Your task to perform on an android device: turn off sleep mode Image 0: 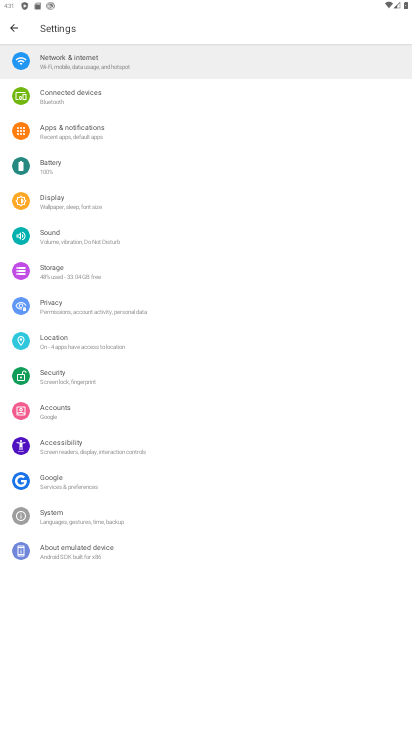
Step 0: drag from (132, 135) to (109, 730)
Your task to perform on an android device: turn off sleep mode Image 1: 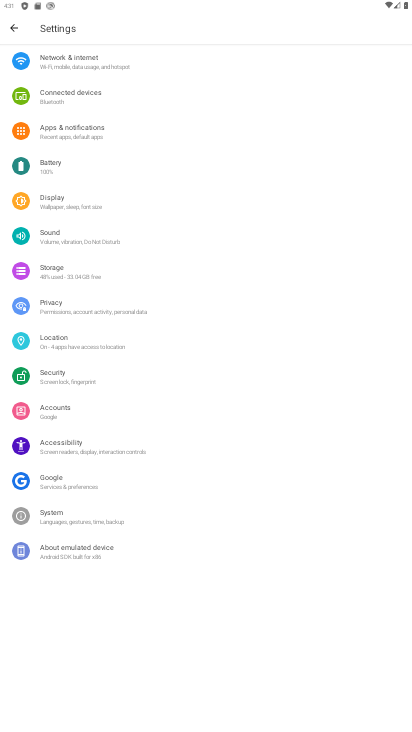
Step 1: drag from (126, 97) to (154, 691)
Your task to perform on an android device: turn off sleep mode Image 2: 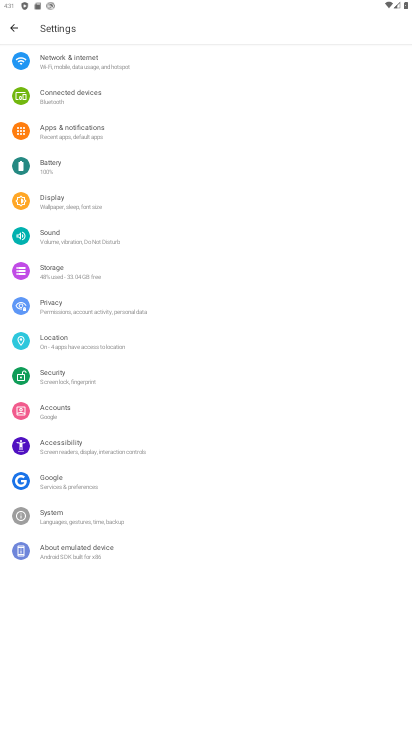
Step 2: click (165, 29)
Your task to perform on an android device: turn off sleep mode Image 3: 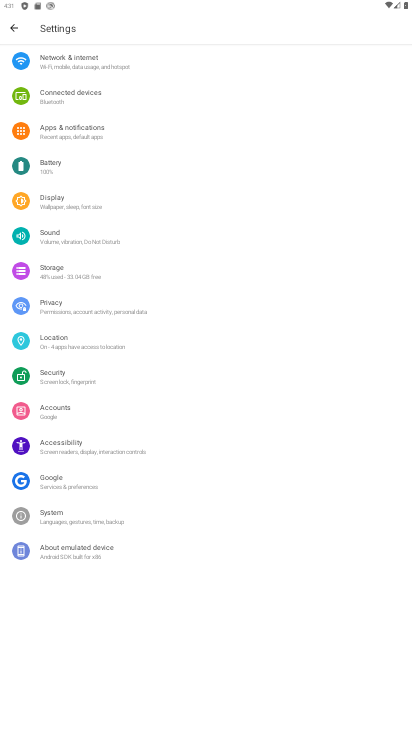
Step 3: click (77, 516)
Your task to perform on an android device: turn off sleep mode Image 4: 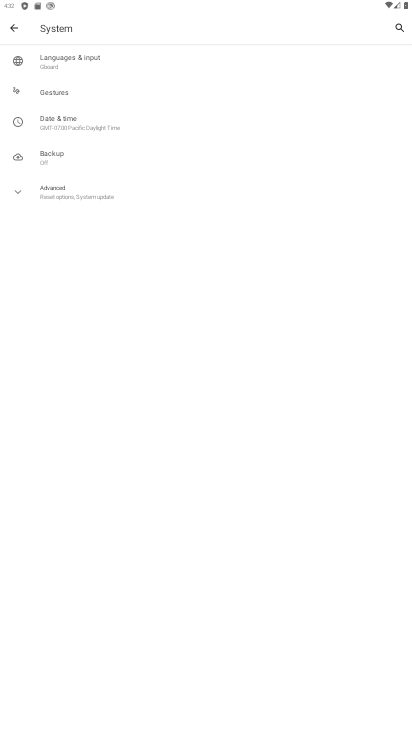
Step 4: task complete